Your task to perform on an android device: Open Yahoo.com Image 0: 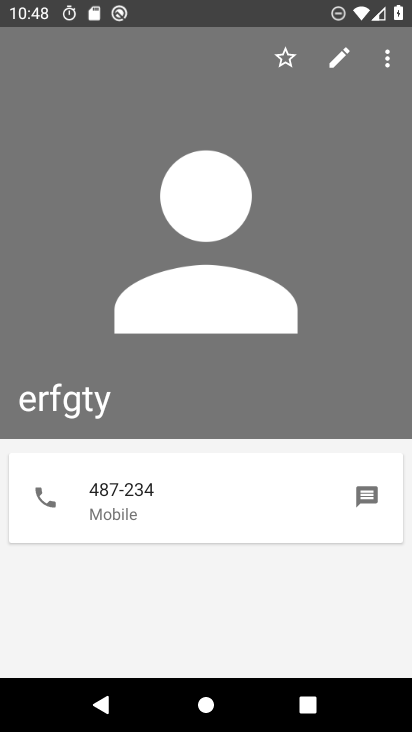
Step 0: press home button
Your task to perform on an android device: Open Yahoo.com Image 1: 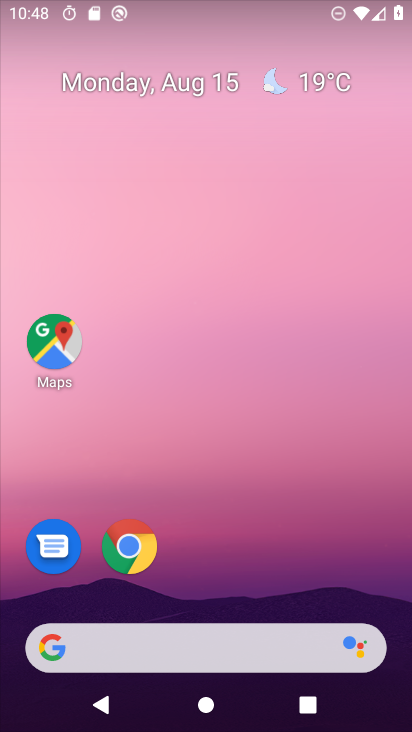
Step 1: click (128, 547)
Your task to perform on an android device: Open Yahoo.com Image 2: 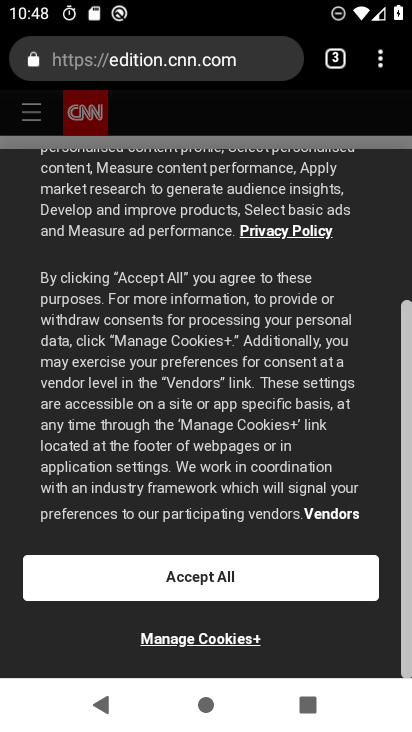
Step 2: click (381, 64)
Your task to perform on an android device: Open Yahoo.com Image 3: 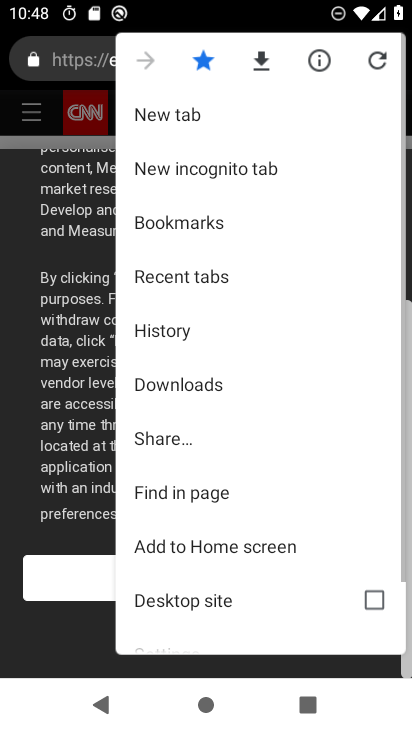
Step 3: click (166, 107)
Your task to perform on an android device: Open Yahoo.com Image 4: 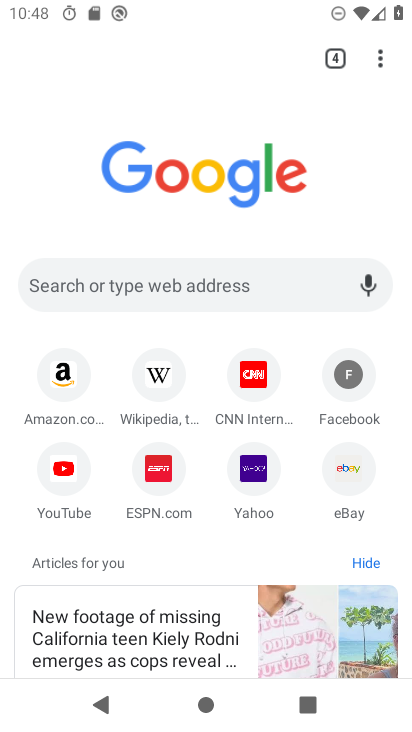
Step 4: click (256, 472)
Your task to perform on an android device: Open Yahoo.com Image 5: 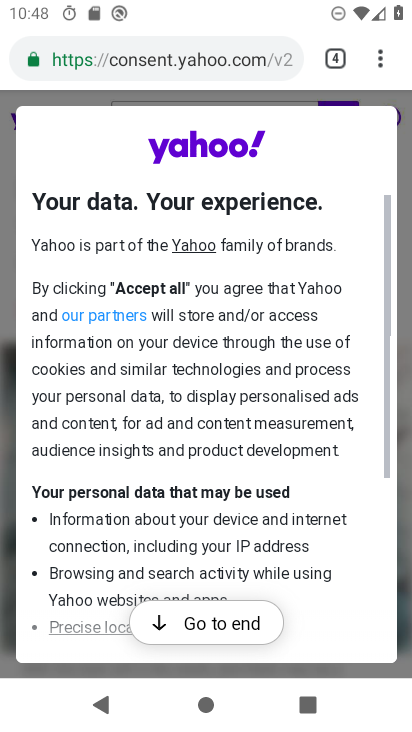
Step 5: click (251, 619)
Your task to perform on an android device: Open Yahoo.com Image 6: 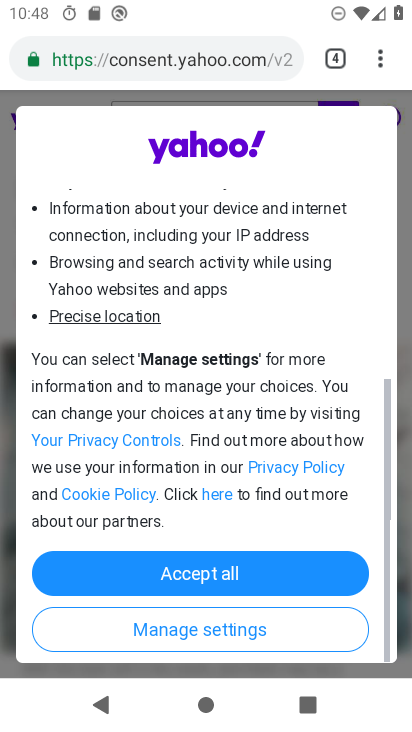
Step 6: click (248, 573)
Your task to perform on an android device: Open Yahoo.com Image 7: 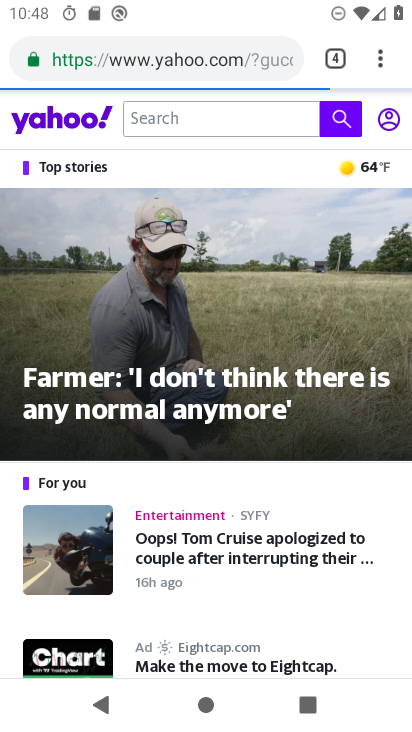
Step 7: task complete